Your task to perform on an android device: Set the phone to "Do not disturb". Image 0: 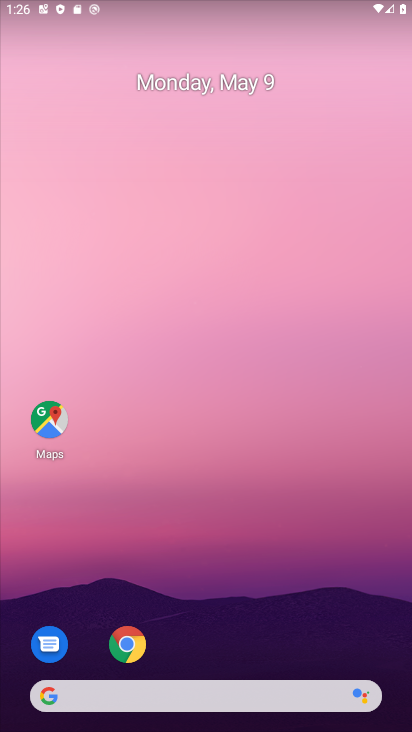
Step 0: click (203, 290)
Your task to perform on an android device: Set the phone to "Do not disturb". Image 1: 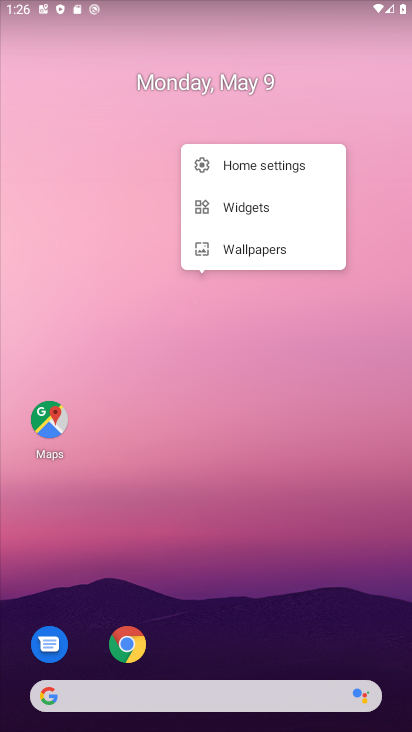
Step 1: drag from (308, 644) to (212, 43)
Your task to perform on an android device: Set the phone to "Do not disturb". Image 2: 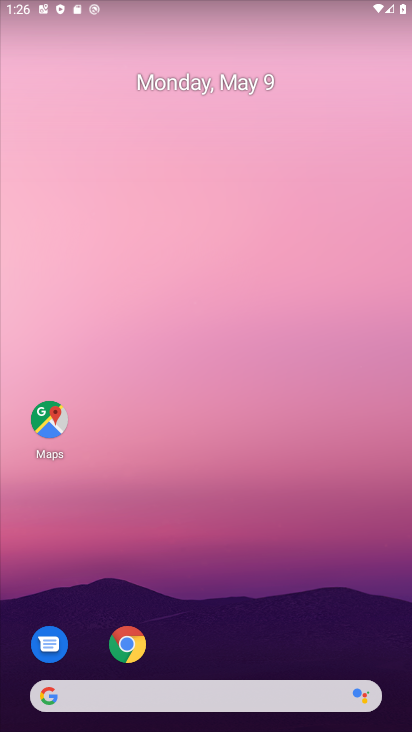
Step 2: drag from (254, 545) to (207, 136)
Your task to perform on an android device: Set the phone to "Do not disturb". Image 3: 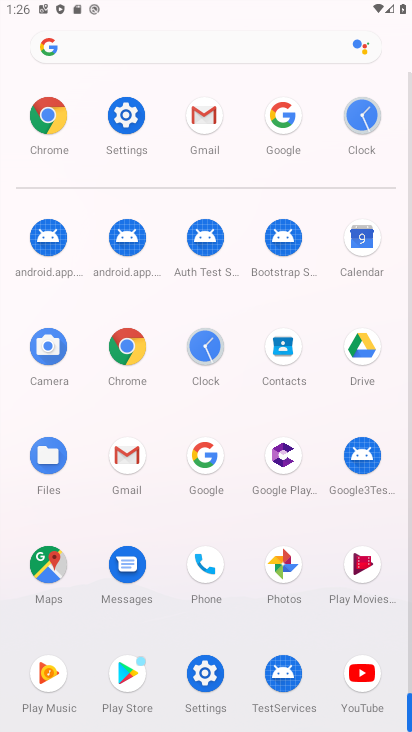
Step 3: click (130, 120)
Your task to perform on an android device: Set the phone to "Do not disturb". Image 4: 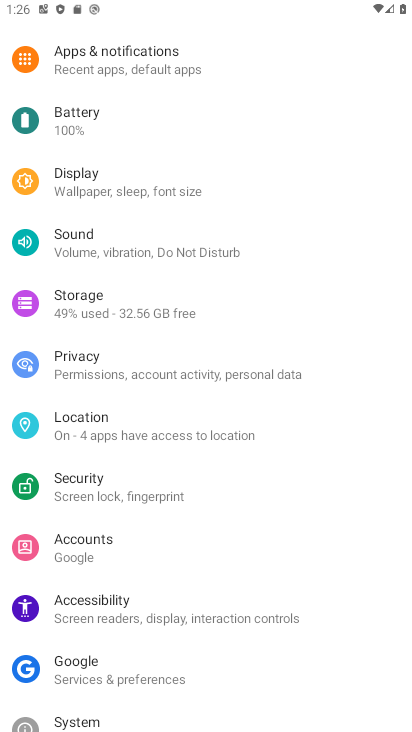
Step 4: click (83, 237)
Your task to perform on an android device: Set the phone to "Do not disturb". Image 5: 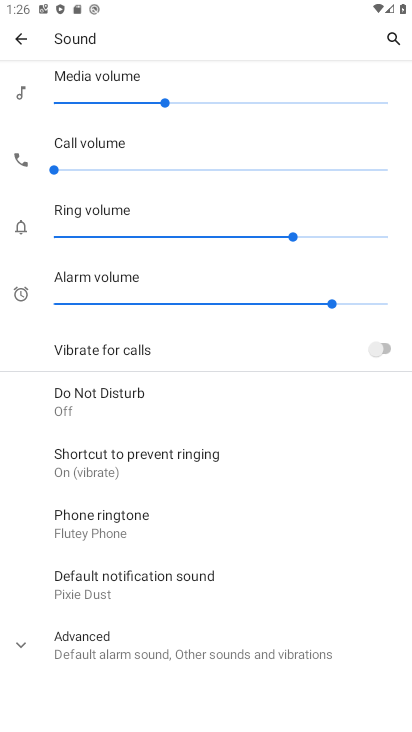
Step 5: click (82, 390)
Your task to perform on an android device: Set the phone to "Do not disturb". Image 6: 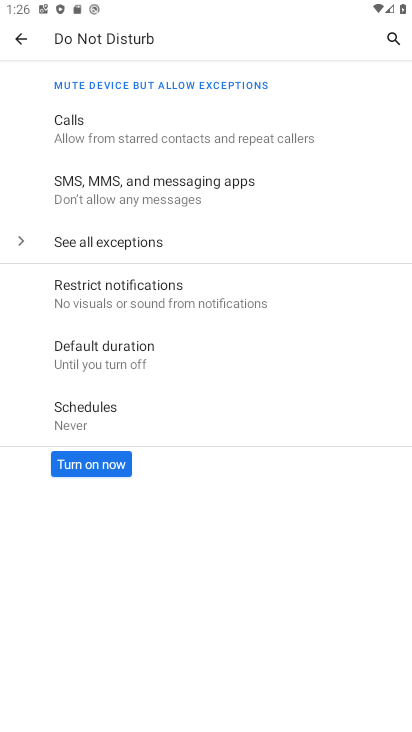
Step 6: click (78, 460)
Your task to perform on an android device: Set the phone to "Do not disturb". Image 7: 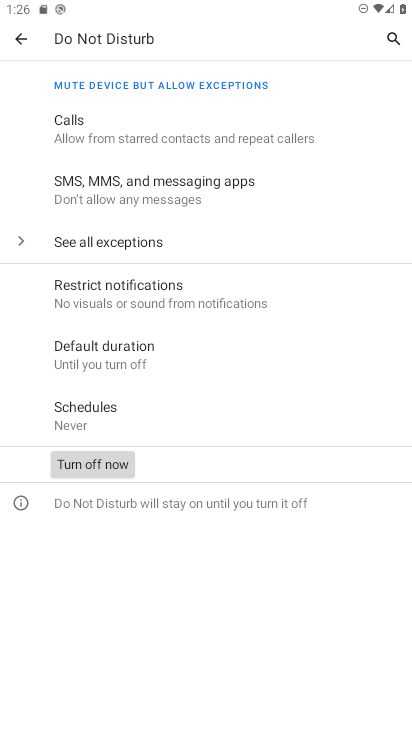
Step 7: task complete